Your task to perform on an android device: delete browsing data in the chrome app Image 0: 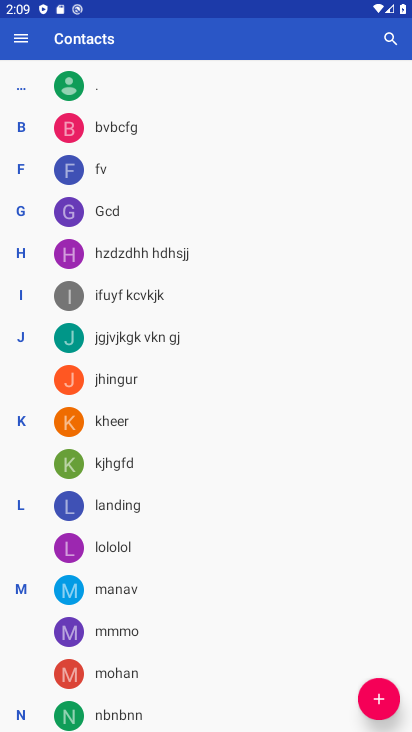
Step 0: press home button
Your task to perform on an android device: delete browsing data in the chrome app Image 1: 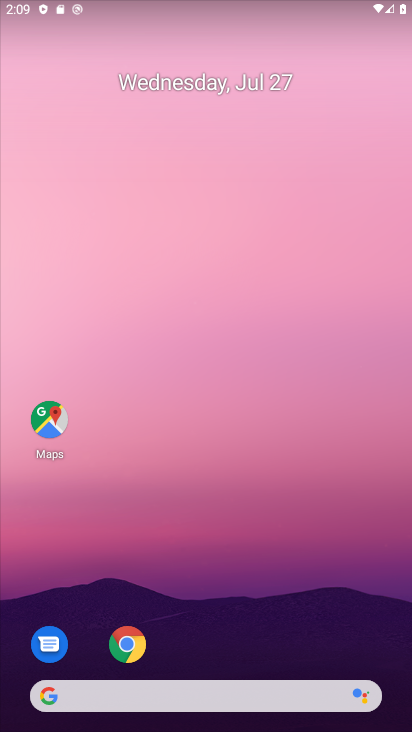
Step 1: click (133, 647)
Your task to perform on an android device: delete browsing data in the chrome app Image 2: 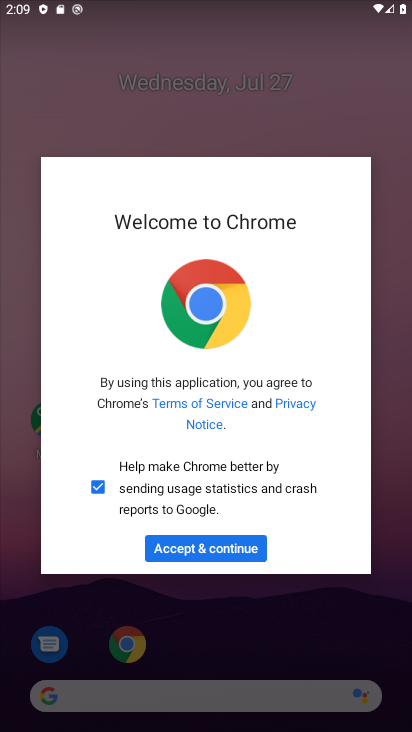
Step 2: click (230, 557)
Your task to perform on an android device: delete browsing data in the chrome app Image 3: 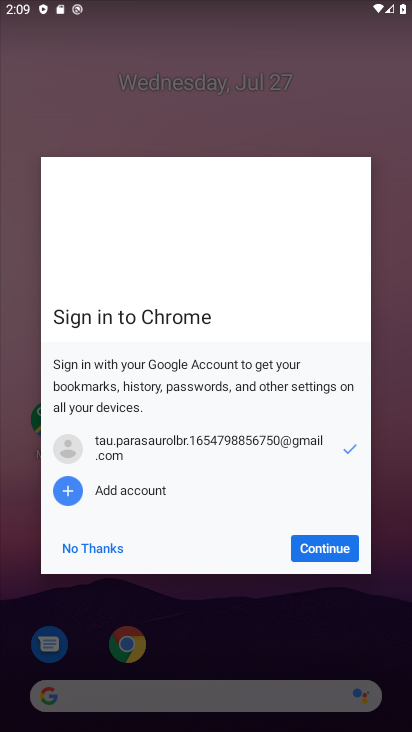
Step 3: click (304, 554)
Your task to perform on an android device: delete browsing data in the chrome app Image 4: 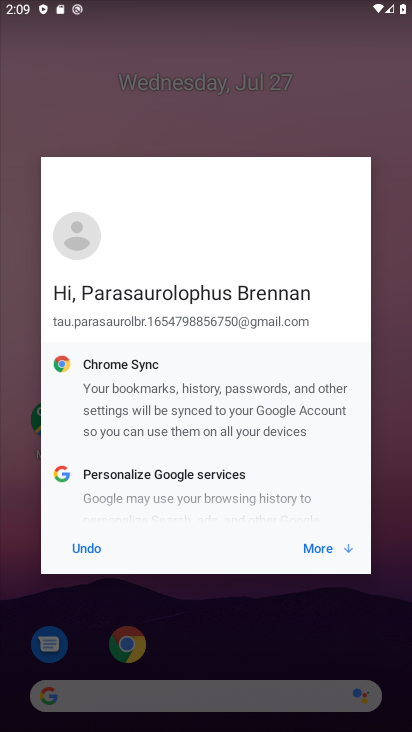
Step 4: click (309, 553)
Your task to perform on an android device: delete browsing data in the chrome app Image 5: 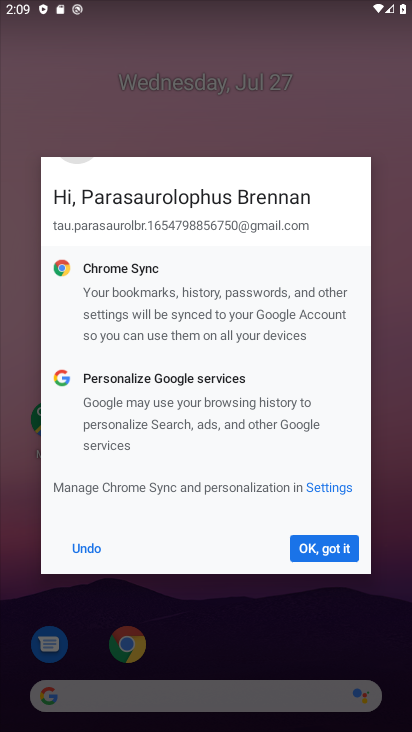
Step 5: click (328, 554)
Your task to perform on an android device: delete browsing data in the chrome app Image 6: 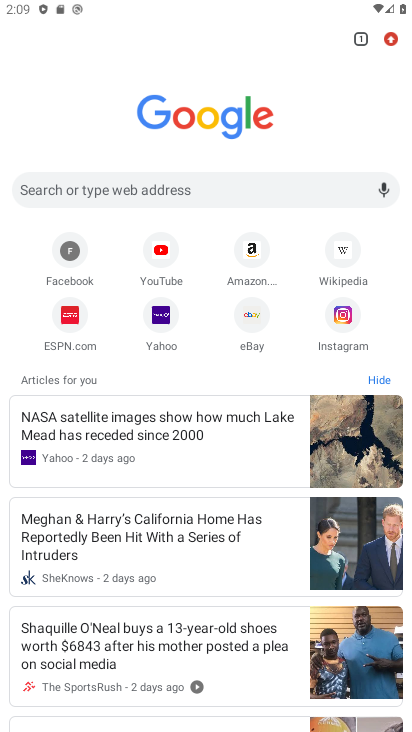
Step 6: click (394, 38)
Your task to perform on an android device: delete browsing data in the chrome app Image 7: 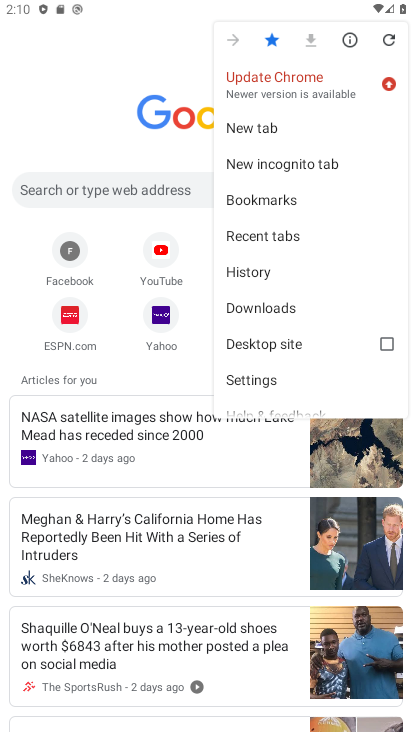
Step 7: click (276, 265)
Your task to perform on an android device: delete browsing data in the chrome app Image 8: 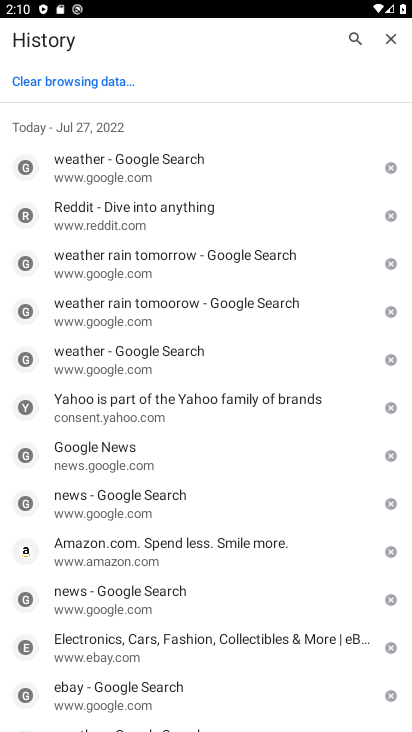
Step 8: click (99, 85)
Your task to perform on an android device: delete browsing data in the chrome app Image 9: 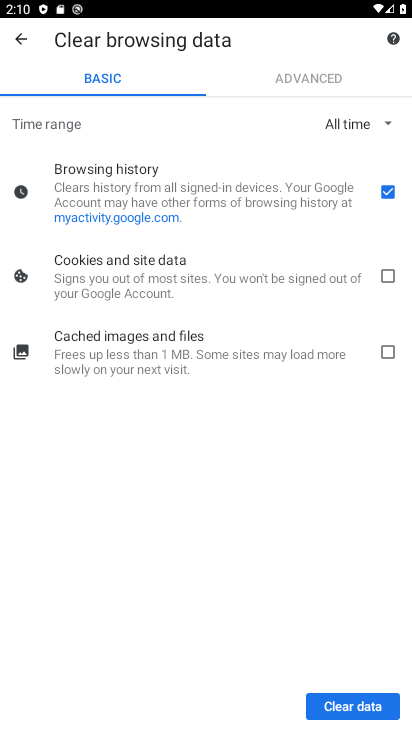
Step 9: click (384, 273)
Your task to perform on an android device: delete browsing data in the chrome app Image 10: 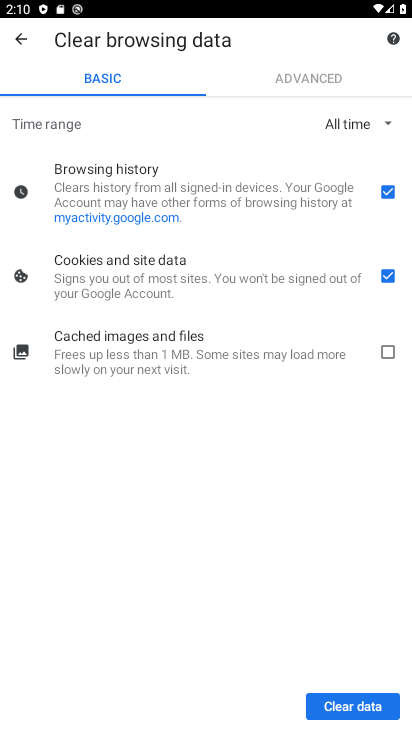
Step 10: click (387, 342)
Your task to perform on an android device: delete browsing data in the chrome app Image 11: 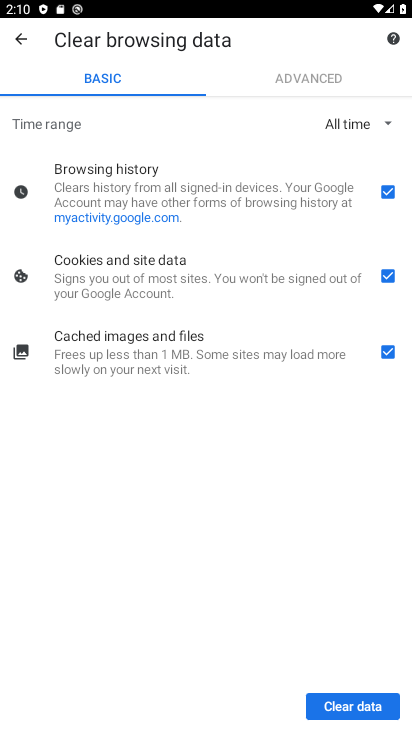
Step 11: click (372, 703)
Your task to perform on an android device: delete browsing data in the chrome app Image 12: 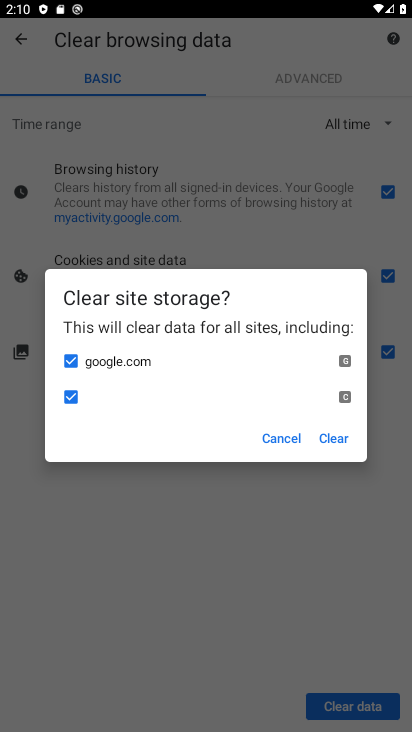
Step 12: click (335, 449)
Your task to perform on an android device: delete browsing data in the chrome app Image 13: 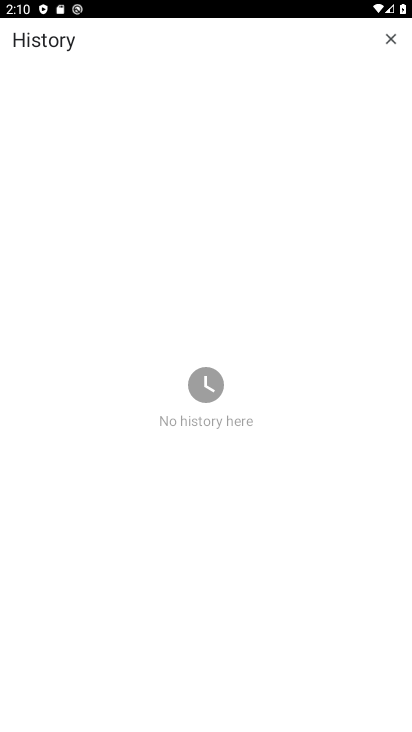
Step 13: task complete